Your task to perform on an android device: change alarm snooze length Image 0: 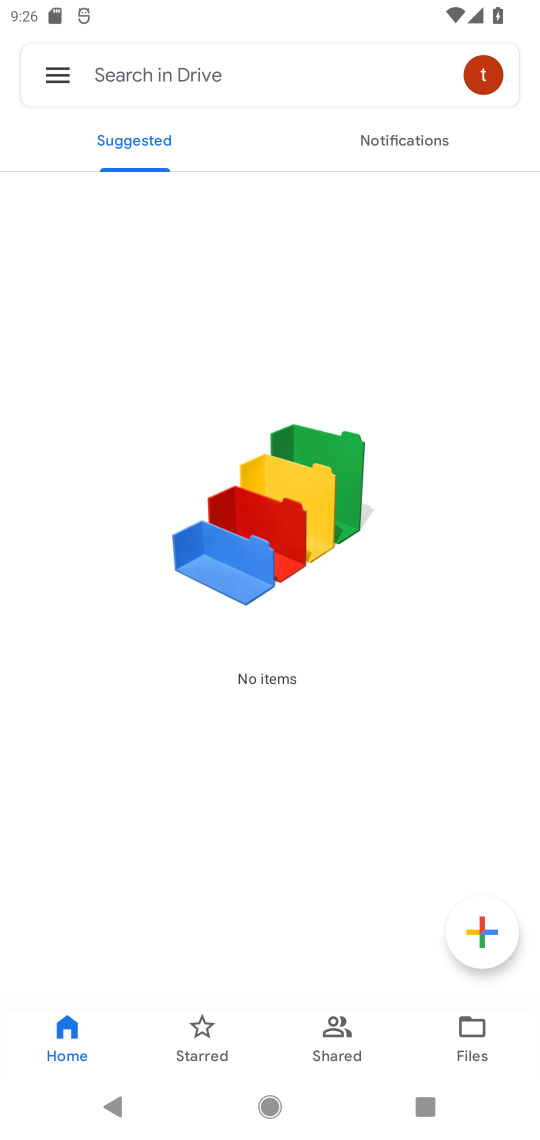
Step 0: press home button
Your task to perform on an android device: change alarm snooze length Image 1: 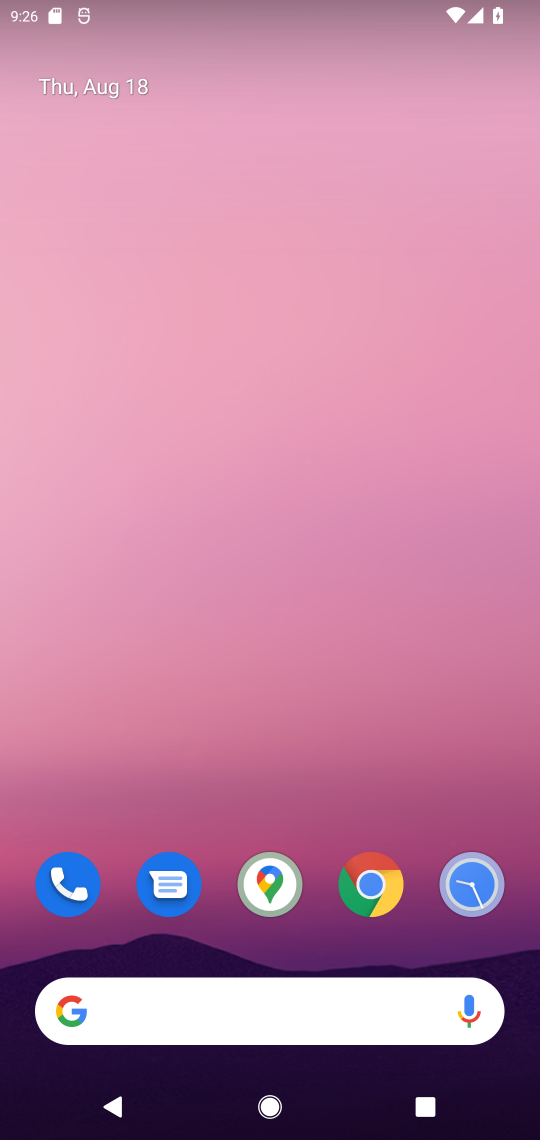
Step 1: click (495, 892)
Your task to perform on an android device: change alarm snooze length Image 2: 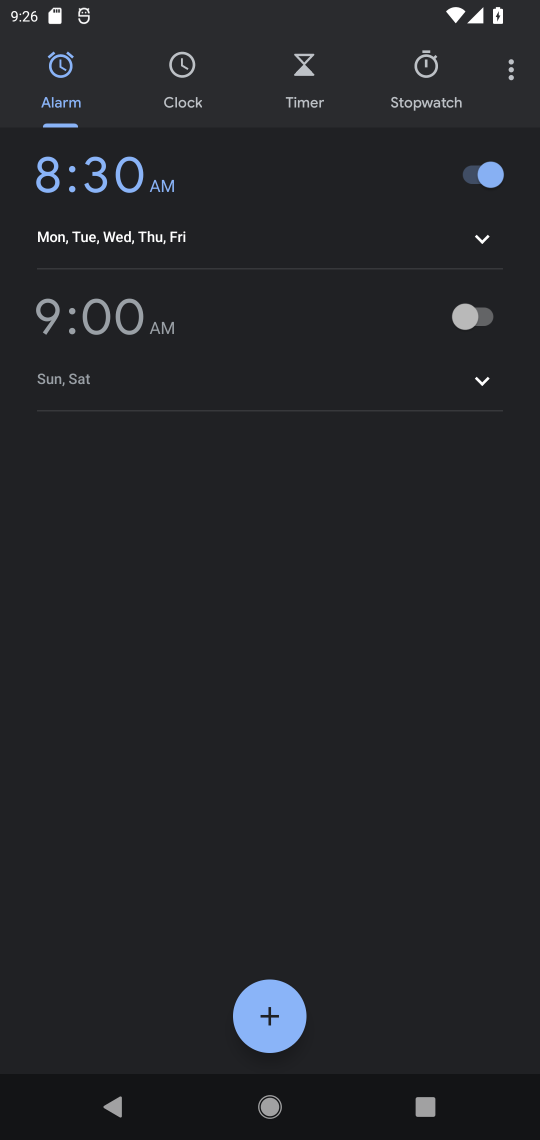
Step 2: click (521, 64)
Your task to perform on an android device: change alarm snooze length Image 3: 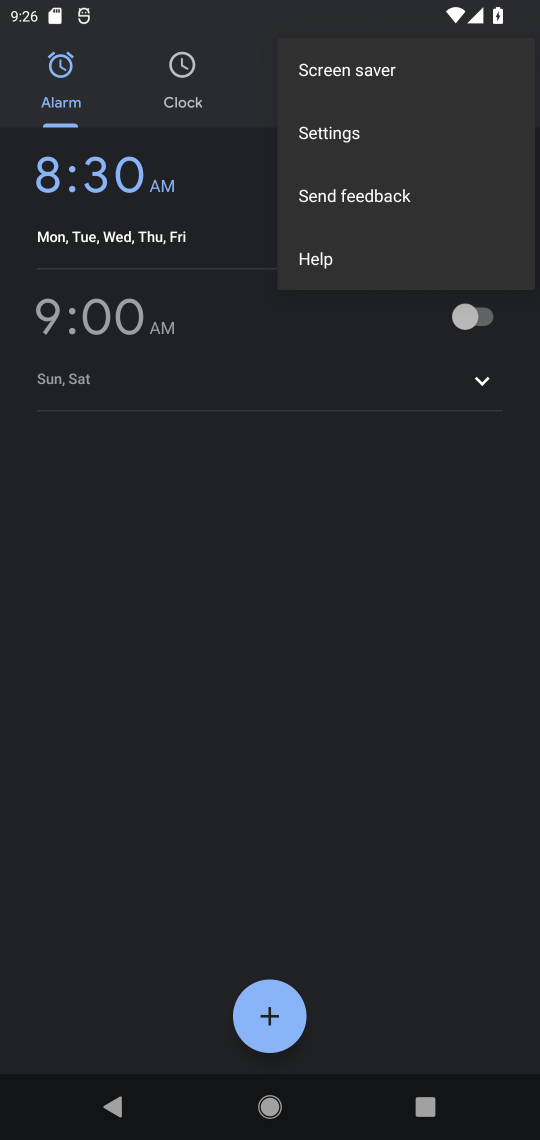
Step 3: click (364, 151)
Your task to perform on an android device: change alarm snooze length Image 4: 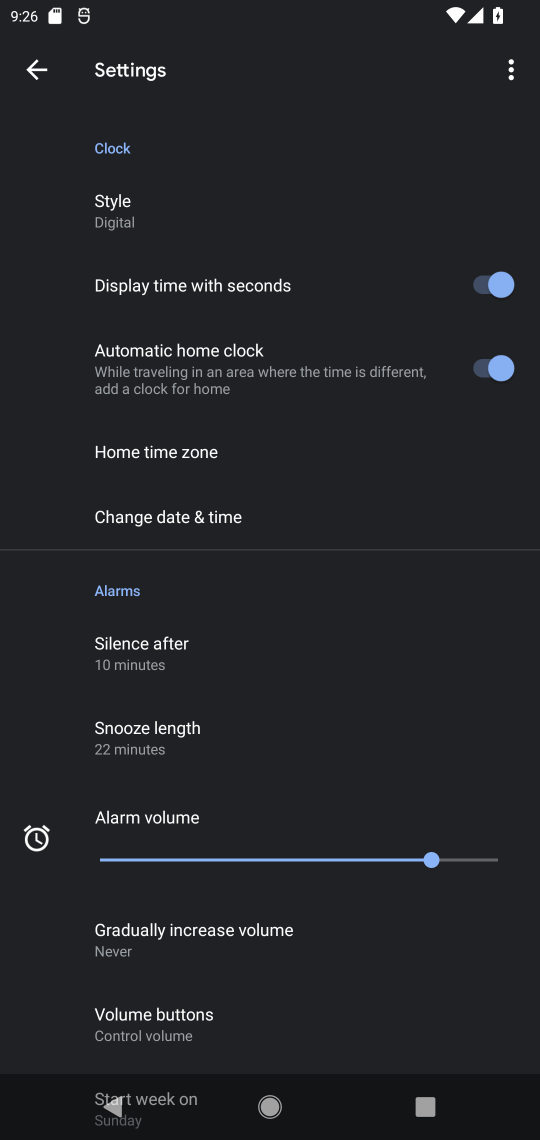
Step 4: click (172, 751)
Your task to perform on an android device: change alarm snooze length Image 5: 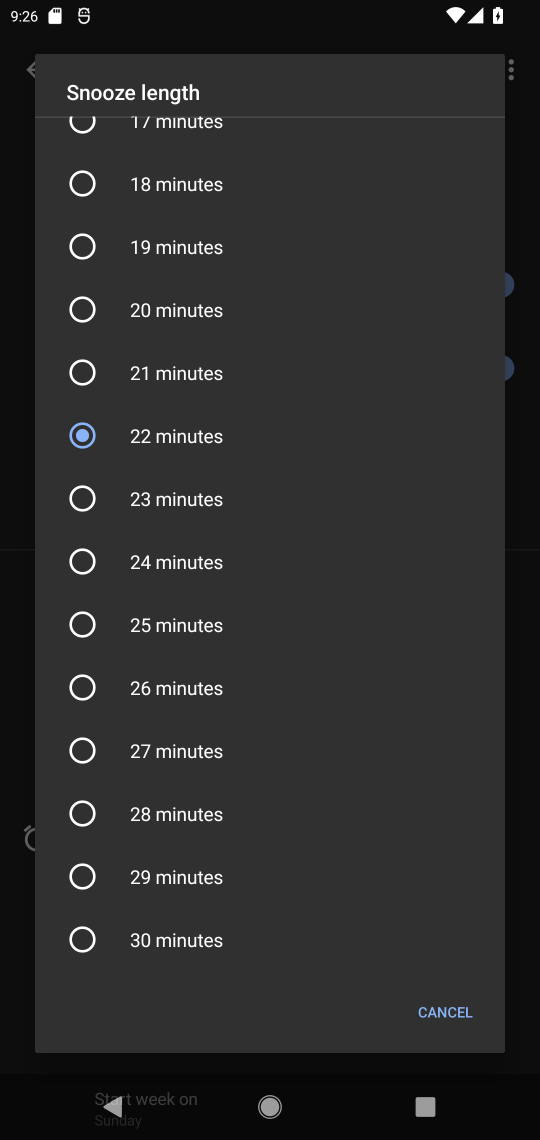
Step 5: click (159, 927)
Your task to perform on an android device: change alarm snooze length Image 6: 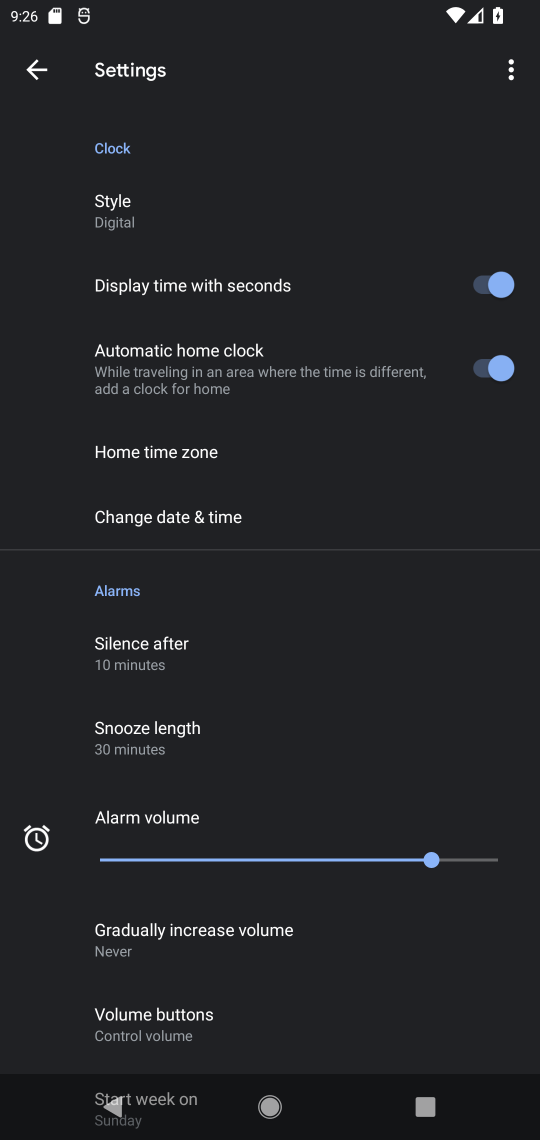
Step 6: task complete